Your task to perform on an android device: change notifications settings Image 0: 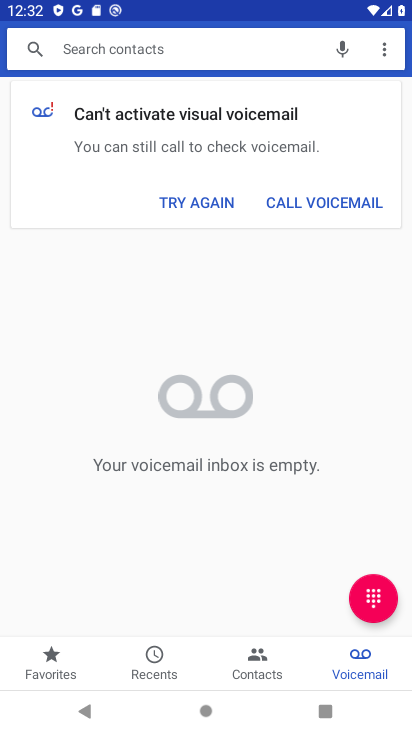
Step 0: press back button
Your task to perform on an android device: change notifications settings Image 1: 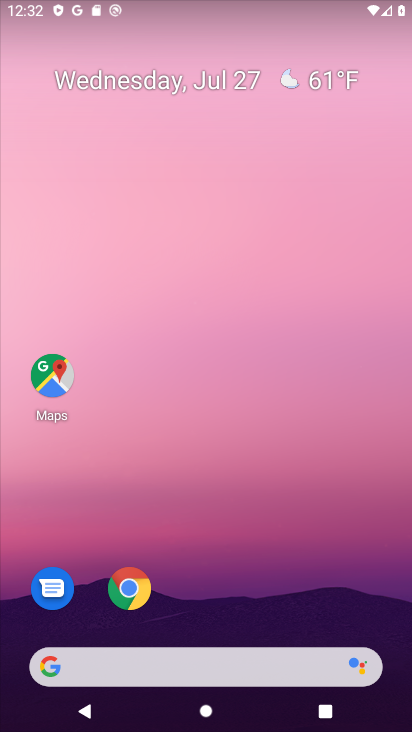
Step 1: drag from (395, 728) to (393, 166)
Your task to perform on an android device: change notifications settings Image 2: 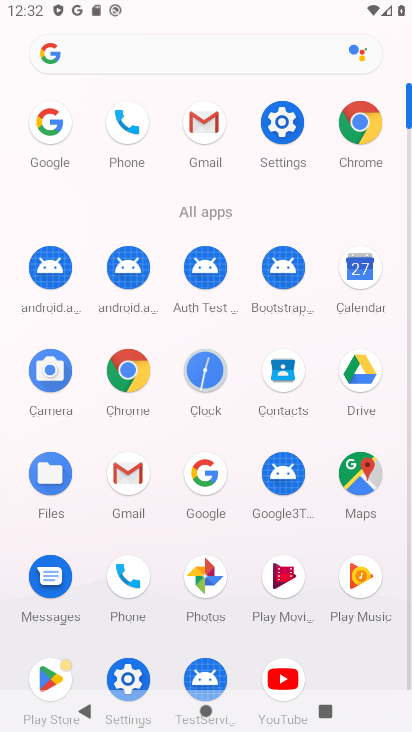
Step 2: click (132, 668)
Your task to perform on an android device: change notifications settings Image 3: 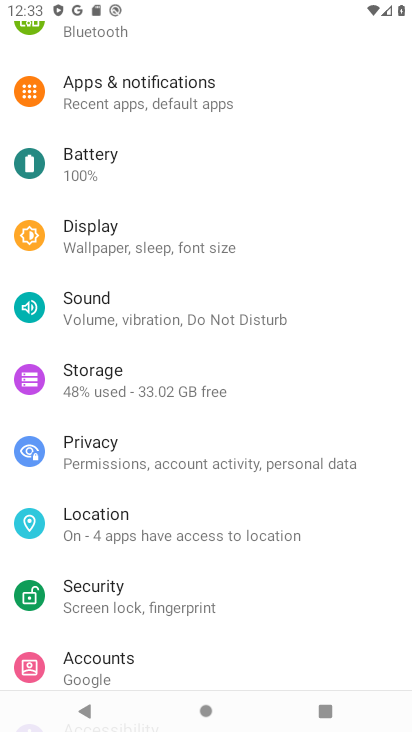
Step 3: click (178, 89)
Your task to perform on an android device: change notifications settings Image 4: 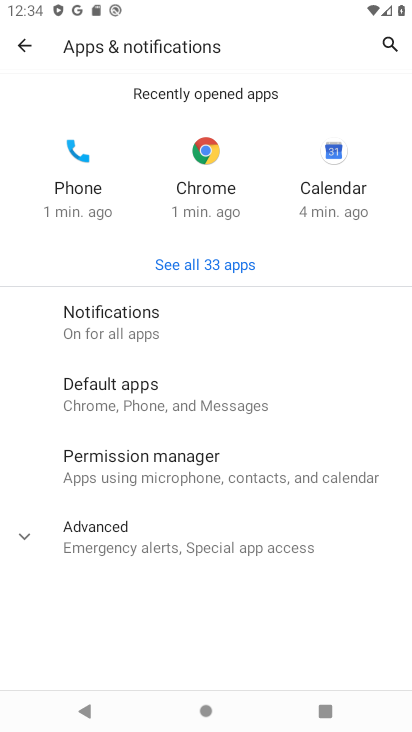
Step 4: click (101, 328)
Your task to perform on an android device: change notifications settings Image 5: 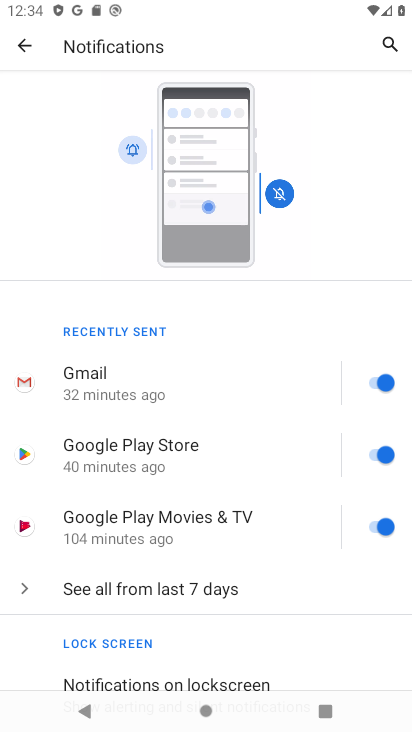
Step 5: click (371, 386)
Your task to perform on an android device: change notifications settings Image 6: 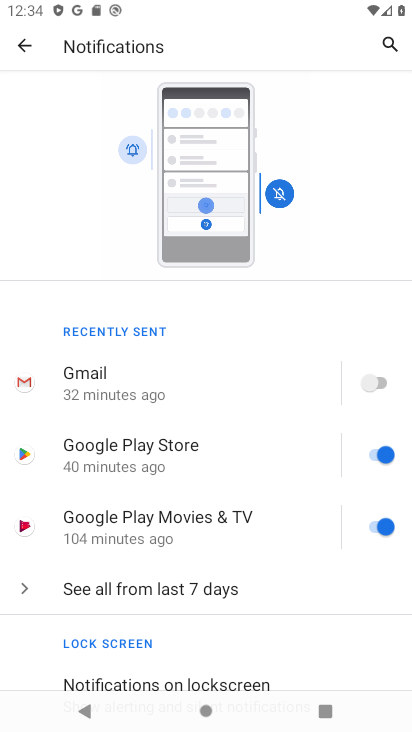
Step 6: click (378, 456)
Your task to perform on an android device: change notifications settings Image 7: 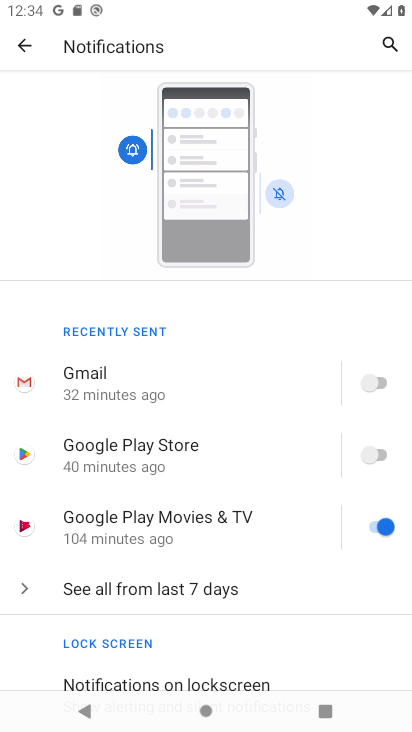
Step 7: click (373, 530)
Your task to perform on an android device: change notifications settings Image 8: 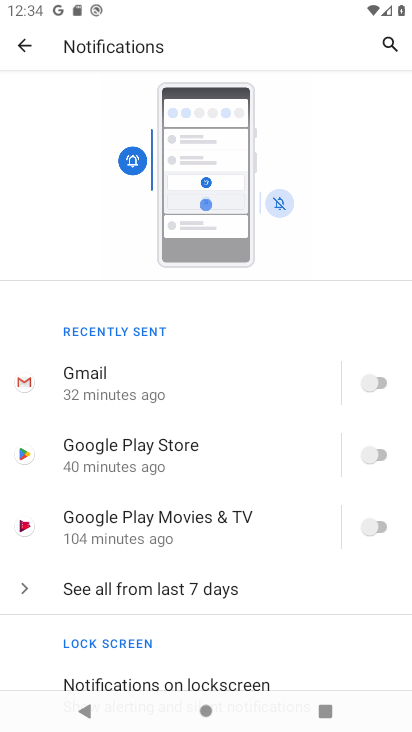
Step 8: task complete